Your task to perform on an android device: Open Youtube and go to "Your channel" Image 0: 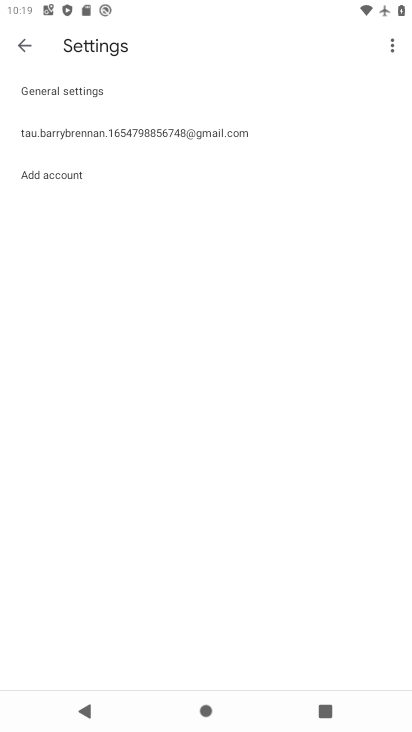
Step 0: press home button
Your task to perform on an android device: Open Youtube and go to "Your channel" Image 1: 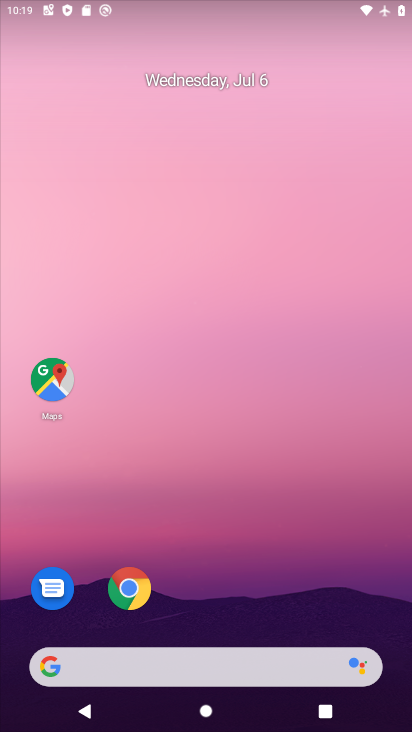
Step 1: drag from (197, 586) to (250, 272)
Your task to perform on an android device: Open Youtube and go to "Your channel" Image 2: 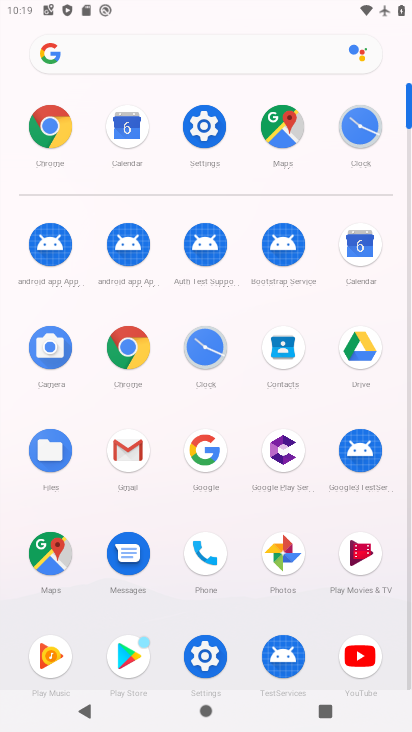
Step 2: drag from (329, 507) to (317, 360)
Your task to perform on an android device: Open Youtube and go to "Your channel" Image 3: 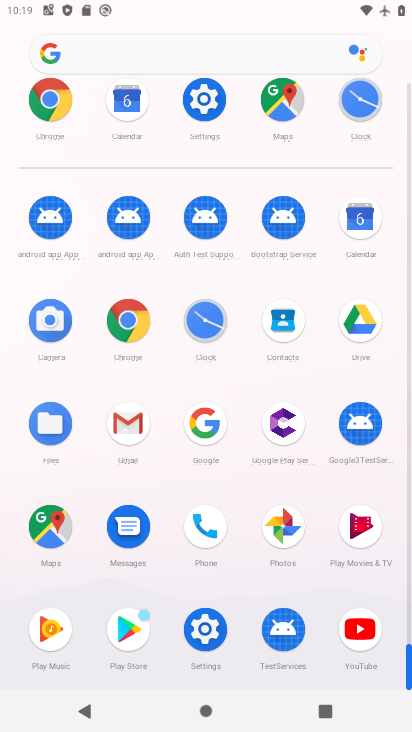
Step 3: click (356, 626)
Your task to perform on an android device: Open Youtube and go to "Your channel" Image 4: 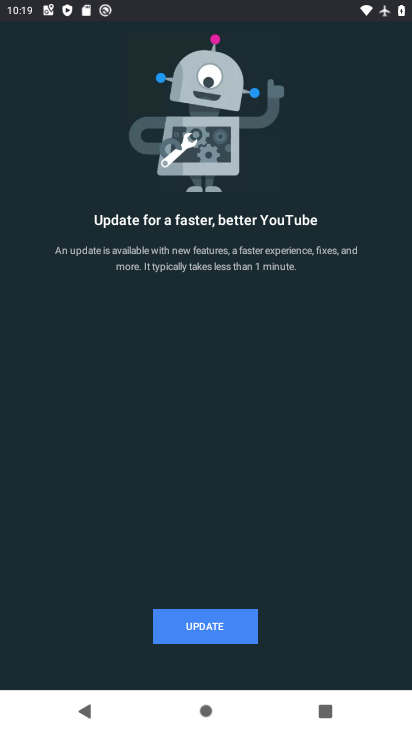
Step 4: task complete